Your task to perform on an android device: toggle notifications settings in the gmail app Image 0: 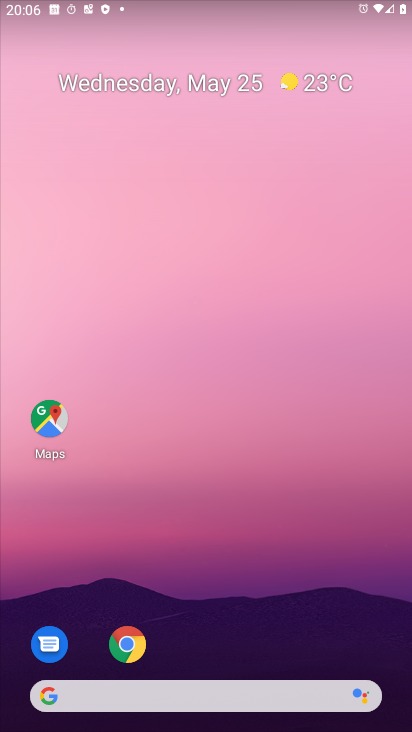
Step 0: drag from (240, 707) to (213, 108)
Your task to perform on an android device: toggle notifications settings in the gmail app Image 1: 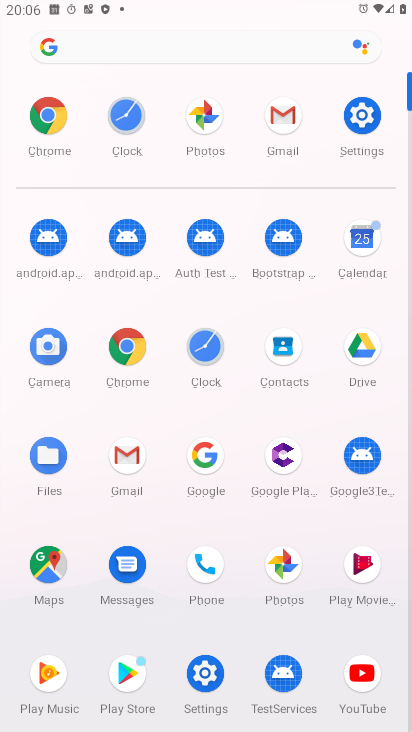
Step 1: click (123, 462)
Your task to perform on an android device: toggle notifications settings in the gmail app Image 2: 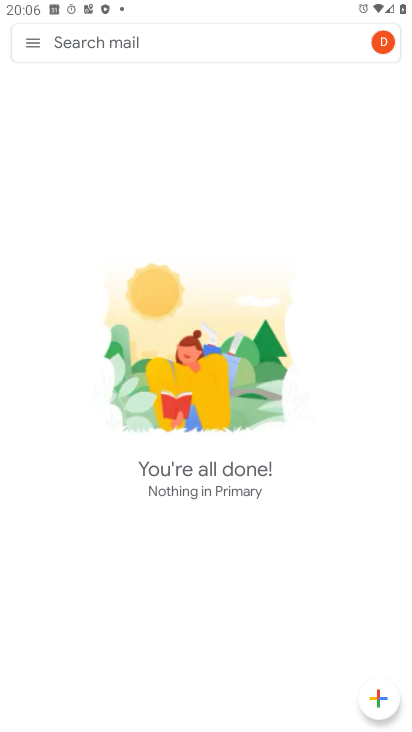
Step 2: click (34, 47)
Your task to perform on an android device: toggle notifications settings in the gmail app Image 3: 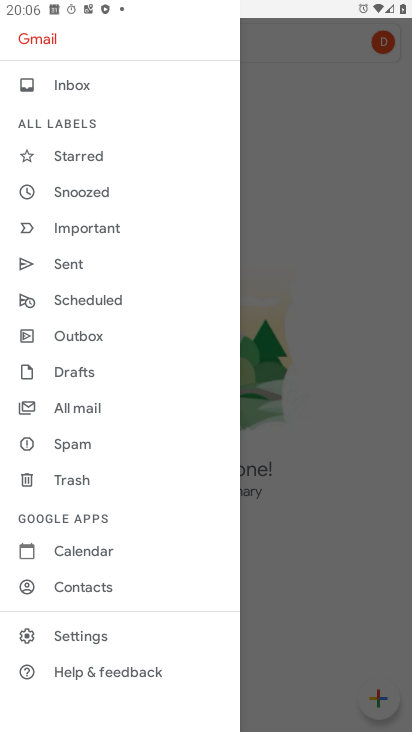
Step 3: click (120, 630)
Your task to perform on an android device: toggle notifications settings in the gmail app Image 4: 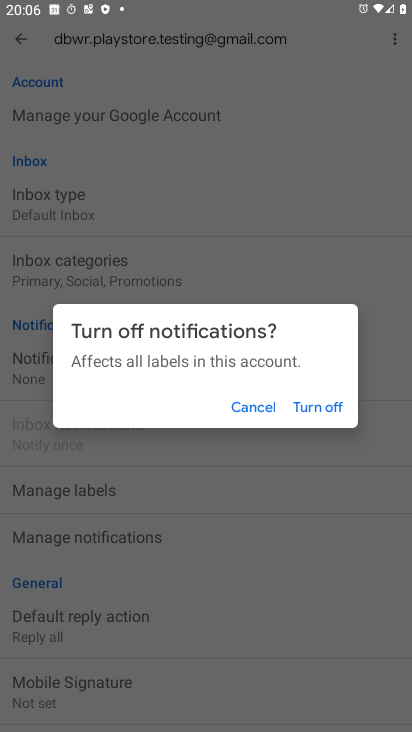
Step 4: click (270, 398)
Your task to perform on an android device: toggle notifications settings in the gmail app Image 5: 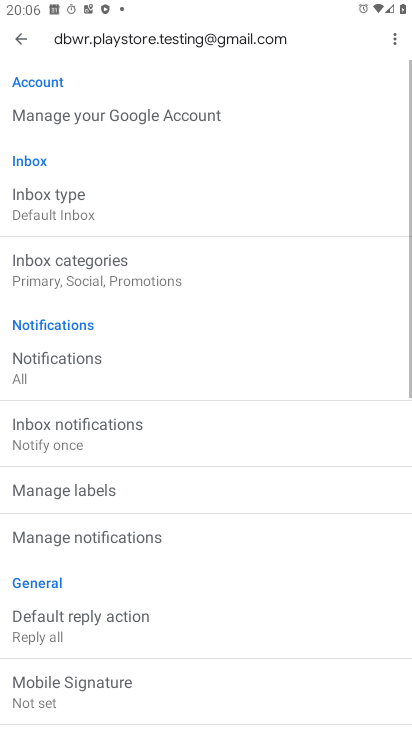
Step 5: click (123, 353)
Your task to perform on an android device: toggle notifications settings in the gmail app Image 6: 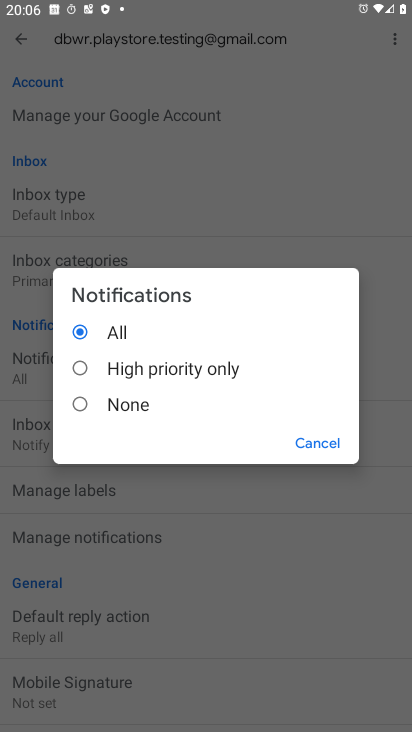
Step 6: task complete